Your task to perform on an android device: Go to settings Image 0: 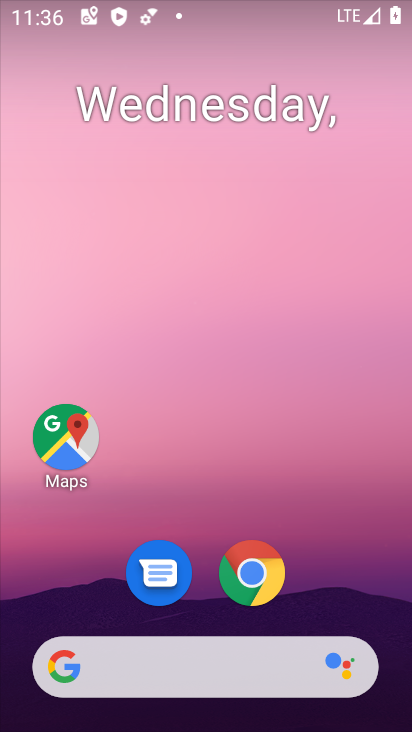
Step 0: drag from (218, 649) to (194, 230)
Your task to perform on an android device: Go to settings Image 1: 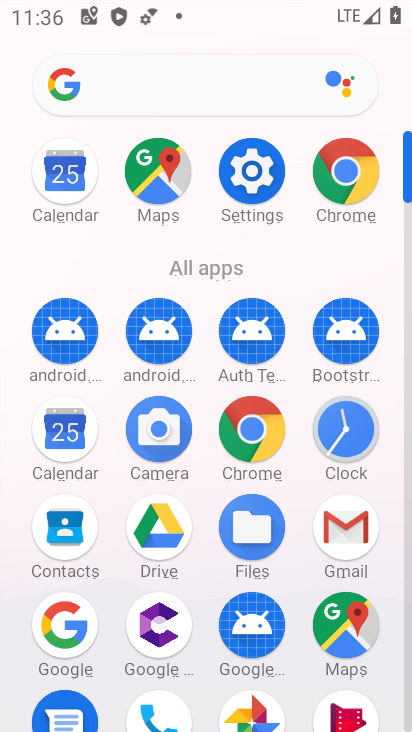
Step 1: click (234, 174)
Your task to perform on an android device: Go to settings Image 2: 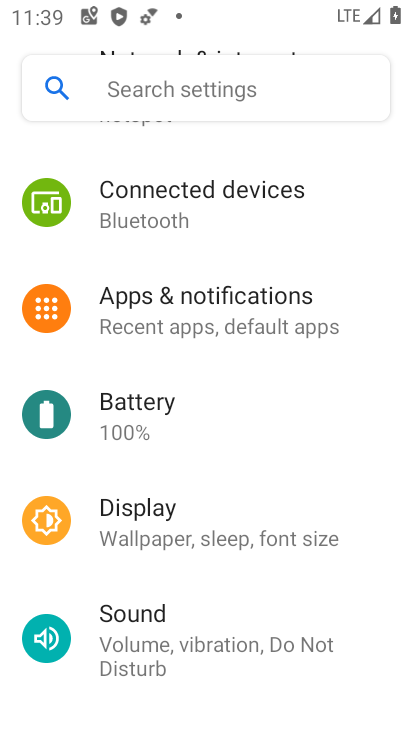
Step 2: task complete